Your task to perform on an android device: Open Google Maps and go to "Timeline" Image 0: 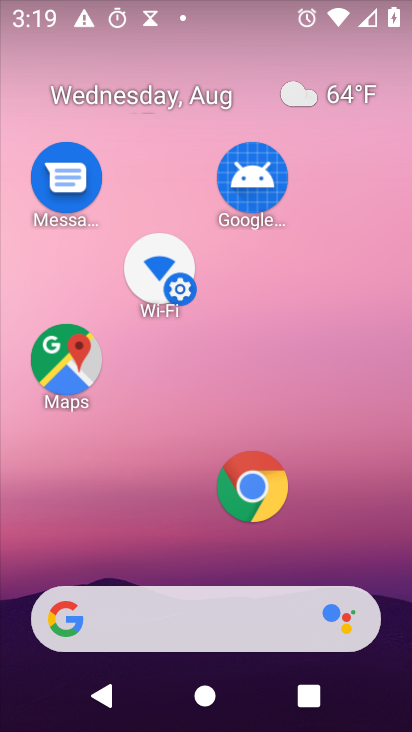
Step 0: press home button
Your task to perform on an android device: Open Google Maps and go to "Timeline" Image 1: 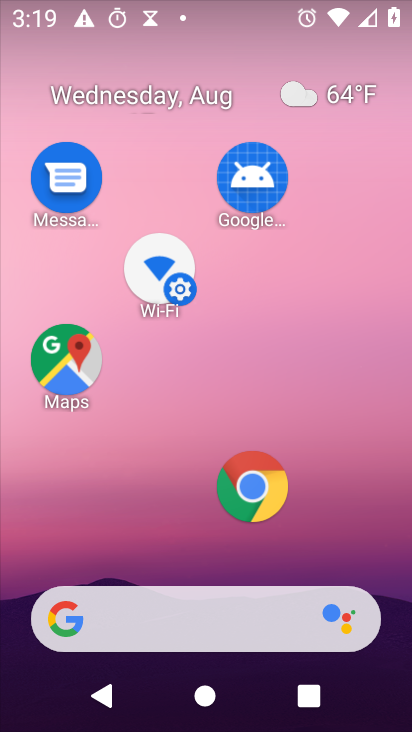
Step 1: press home button
Your task to perform on an android device: Open Google Maps and go to "Timeline" Image 2: 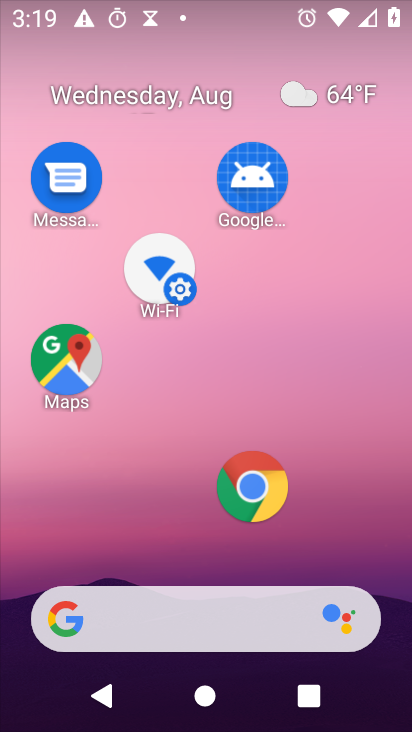
Step 2: click (54, 365)
Your task to perform on an android device: Open Google Maps and go to "Timeline" Image 3: 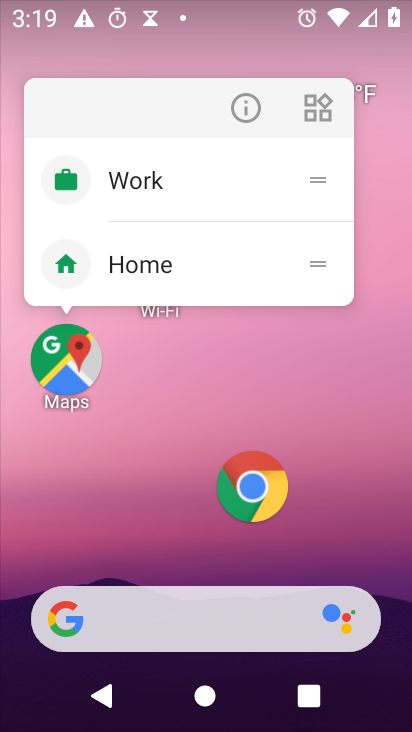
Step 3: click (54, 365)
Your task to perform on an android device: Open Google Maps and go to "Timeline" Image 4: 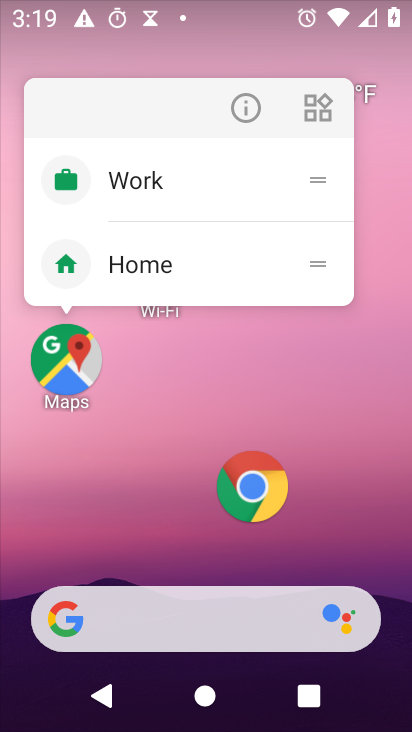
Step 4: click (54, 365)
Your task to perform on an android device: Open Google Maps and go to "Timeline" Image 5: 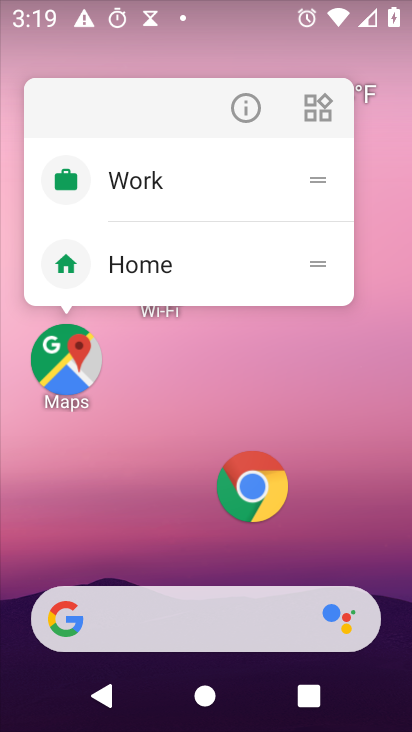
Step 5: click (55, 379)
Your task to perform on an android device: Open Google Maps and go to "Timeline" Image 6: 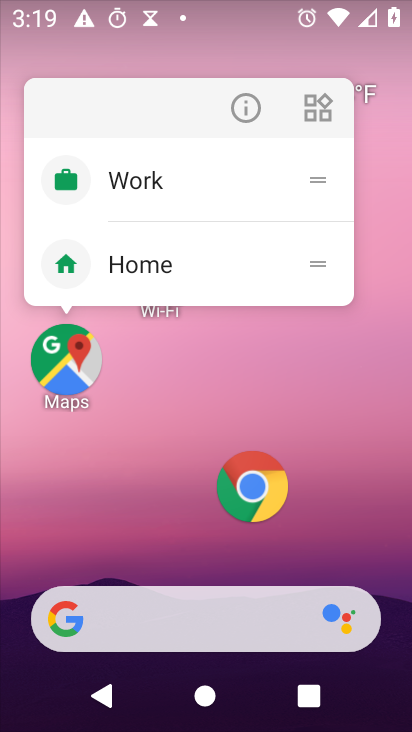
Step 6: click (55, 379)
Your task to perform on an android device: Open Google Maps and go to "Timeline" Image 7: 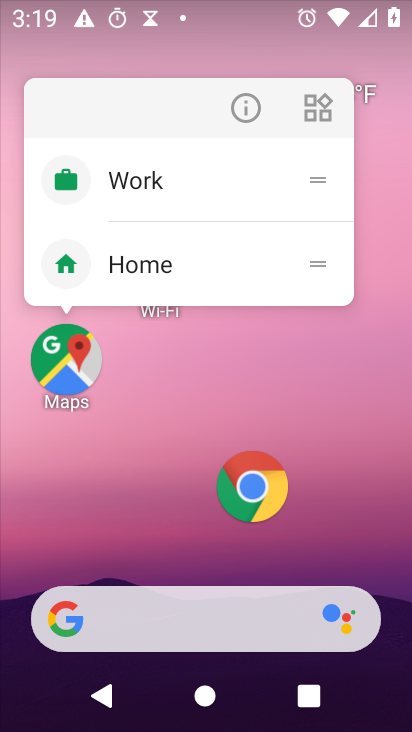
Step 7: click (55, 379)
Your task to perform on an android device: Open Google Maps and go to "Timeline" Image 8: 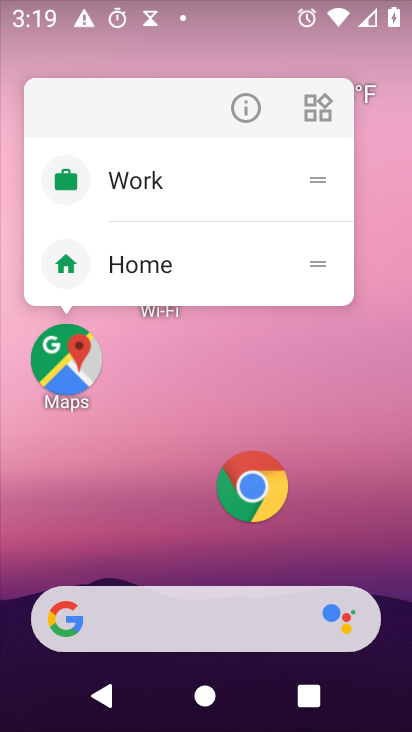
Step 8: click (55, 379)
Your task to perform on an android device: Open Google Maps and go to "Timeline" Image 9: 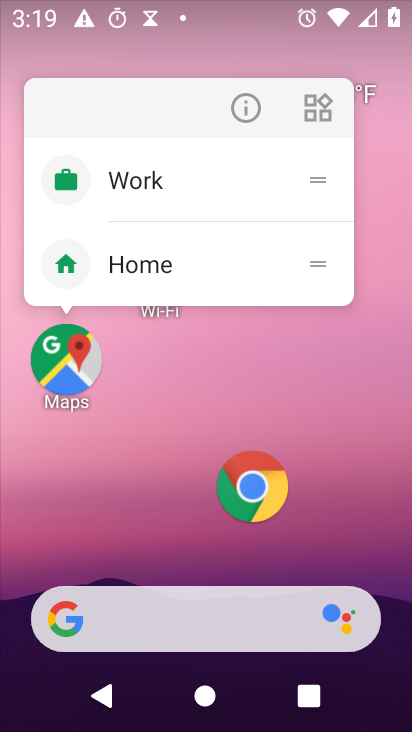
Step 9: click (74, 347)
Your task to perform on an android device: Open Google Maps and go to "Timeline" Image 10: 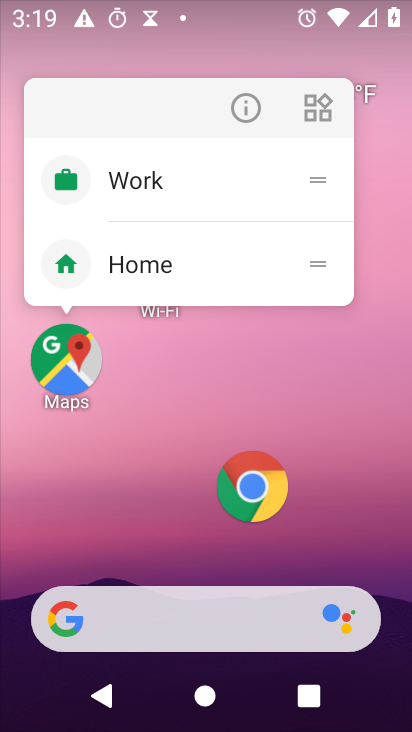
Step 10: click (47, 366)
Your task to perform on an android device: Open Google Maps and go to "Timeline" Image 11: 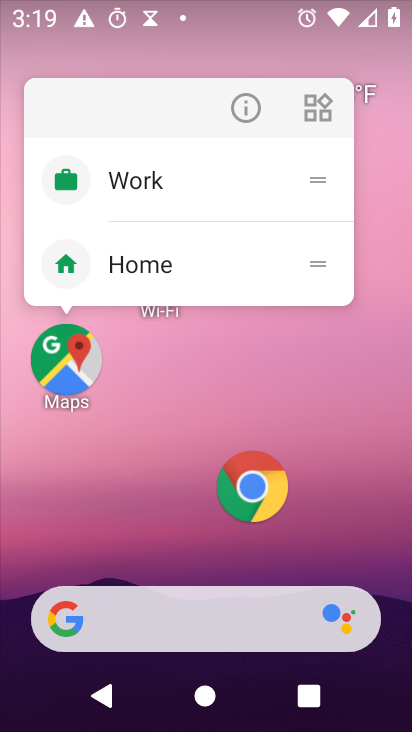
Step 11: click (47, 366)
Your task to perform on an android device: Open Google Maps and go to "Timeline" Image 12: 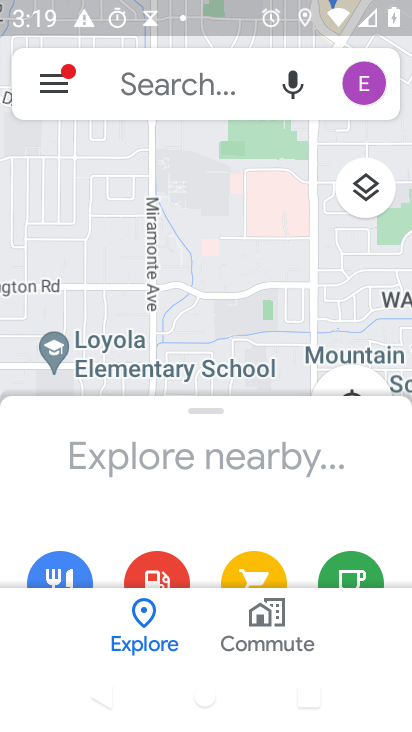
Step 12: click (43, 90)
Your task to perform on an android device: Open Google Maps and go to "Timeline" Image 13: 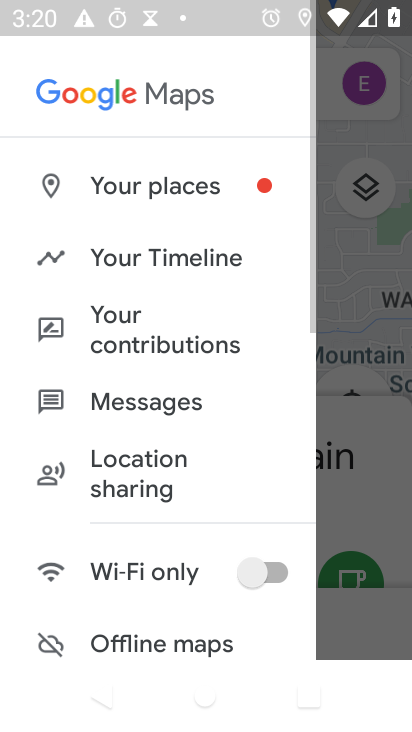
Step 13: click (125, 255)
Your task to perform on an android device: Open Google Maps and go to "Timeline" Image 14: 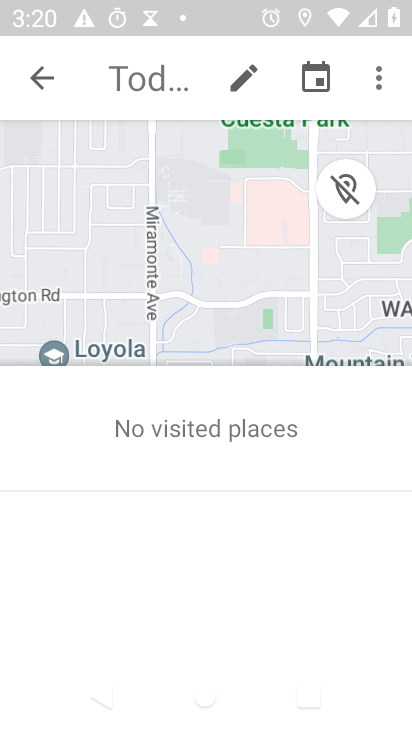
Step 14: task complete